Your task to perform on an android device: open app "Facebook Lite" (install if not already installed) Image 0: 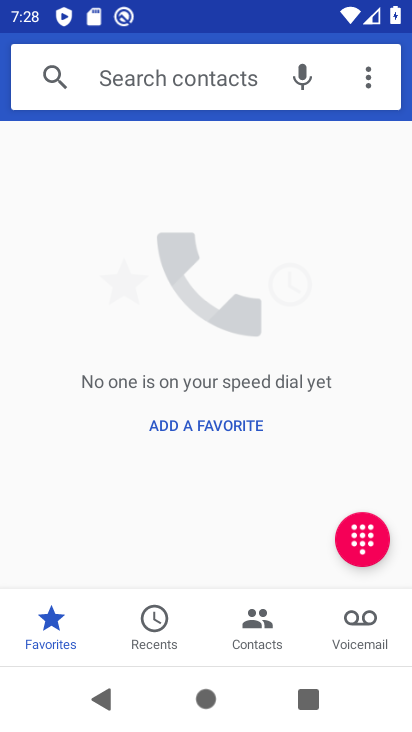
Step 0: press home button
Your task to perform on an android device: open app "Facebook Lite" (install if not already installed) Image 1: 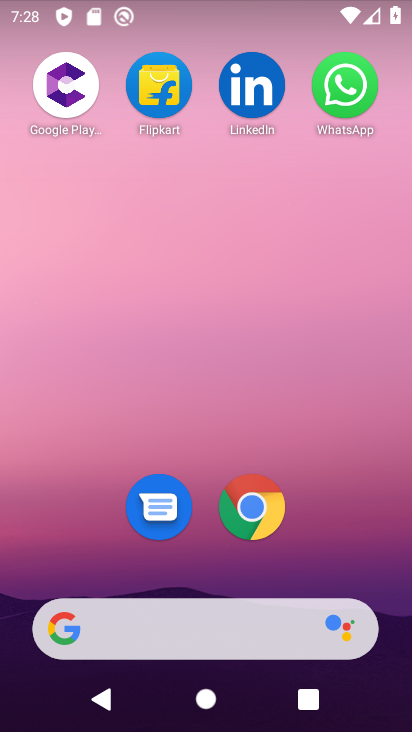
Step 1: drag from (358, 568) to (395, 168)
Your task to perform on an android device: open app "Facebook Lite" (install if not already installed) Image 2: 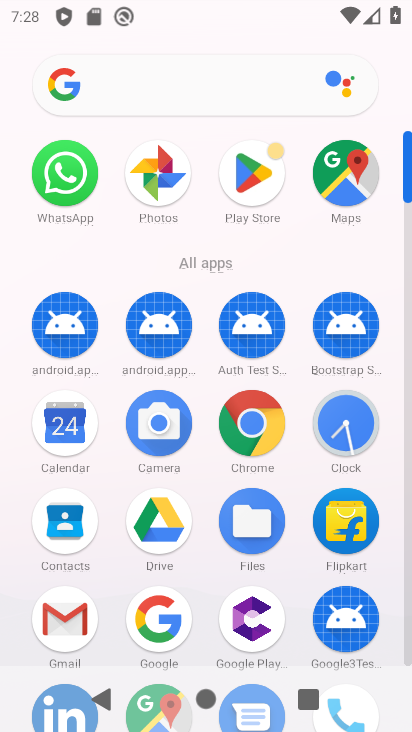
Step 2: click (247, 183)
Your task to perform on an android device: open app "Facebook Lite" (install if not already installed) Image 3: 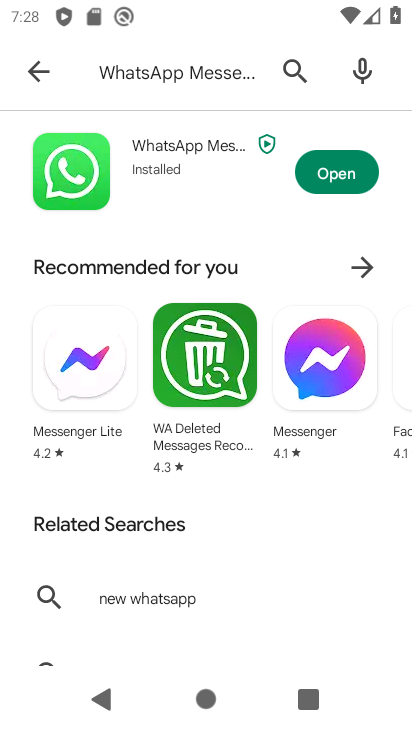
Step 3: press back button
Your task to perform on an android device: open app "Facebook Lite" (install if not already installed) Image 4: 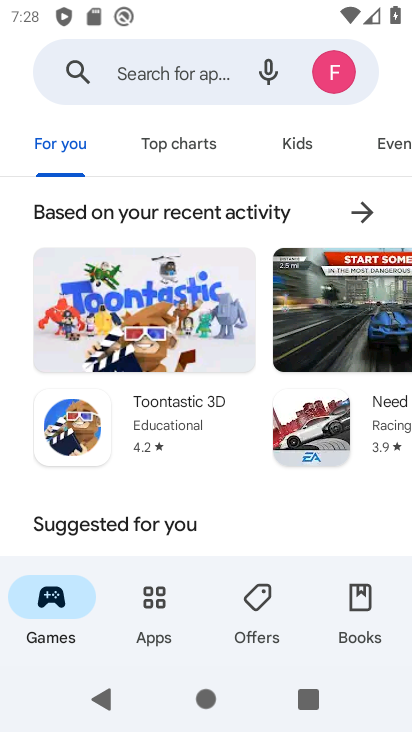
Step 4: click (168, 71)
Your task to perform on an android device: open app "Facebook Lite" (install if not already installed) Image 5: 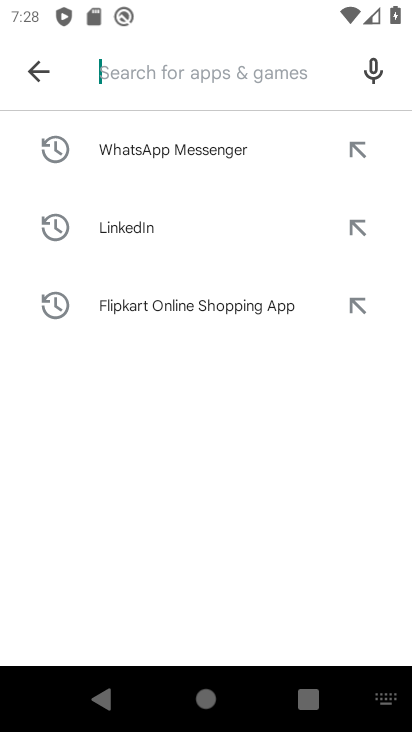
Step 5: type "Facebook Lite"
Your task to perform on an android device: open app "Facebook Lite" (install if not already installed) Image 6: 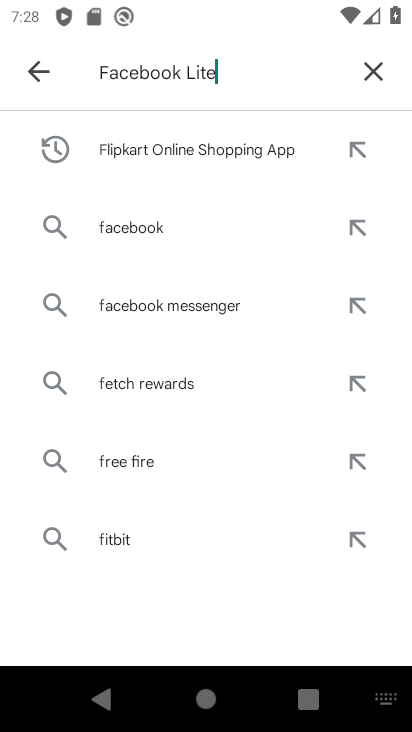
Step 6: press enter
Your task to perform on an android device: open app "Facebook Lite" (install if not already installed) Image 7: 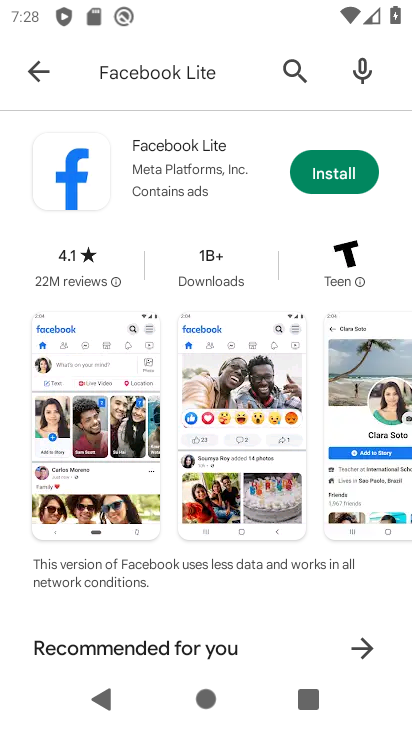
Step 7: click (322, 174)
Your task to perform on an android device: open app "Facebook Lite" (install if not already installed) Image 8: 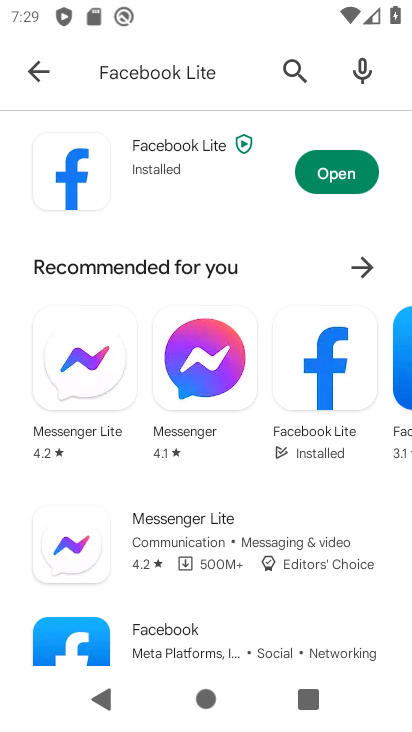
Step 8: click (342, 173)
Your task to perform on an android device: open app "Facebook Lite" (install if not already installed) Image 9: 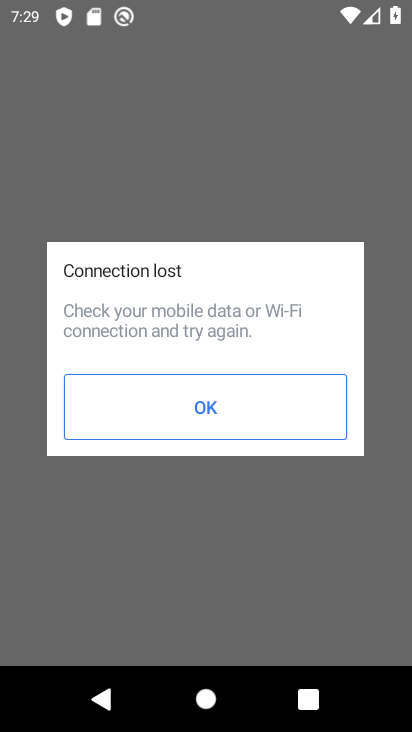
Step 9: task complete